Your task to perform on an android device: Search for vegetarian restaurants on Maps Image 0: 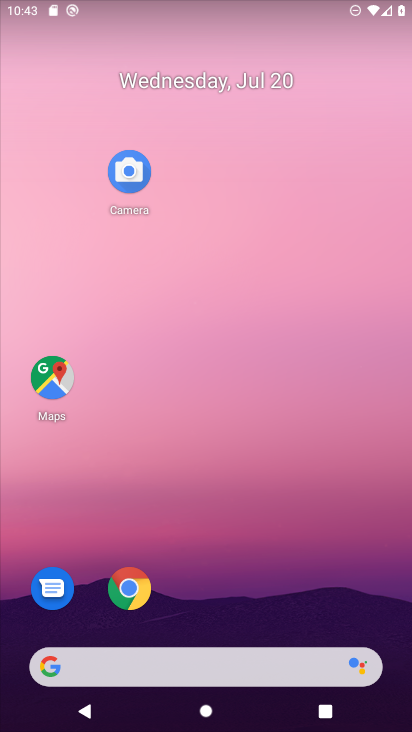
Step 0: press home button
Your task to perform on an android device: Search for vegetarian restaurants on Maps Image 1: 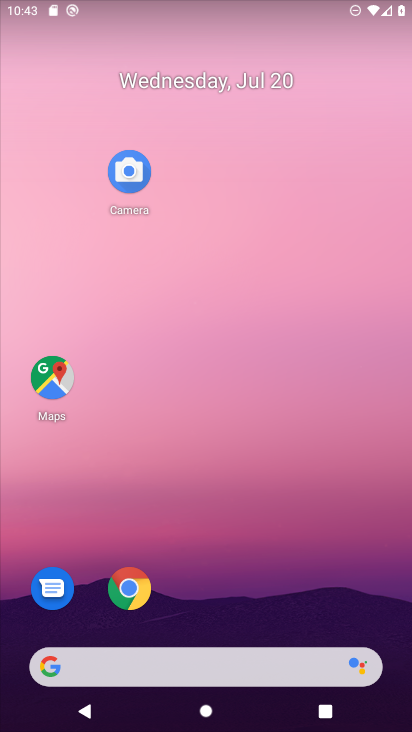
Step 1: click (56, 369)
Your task to perform on an android device: Search for vegetarian restaurants on Maps Image 2: 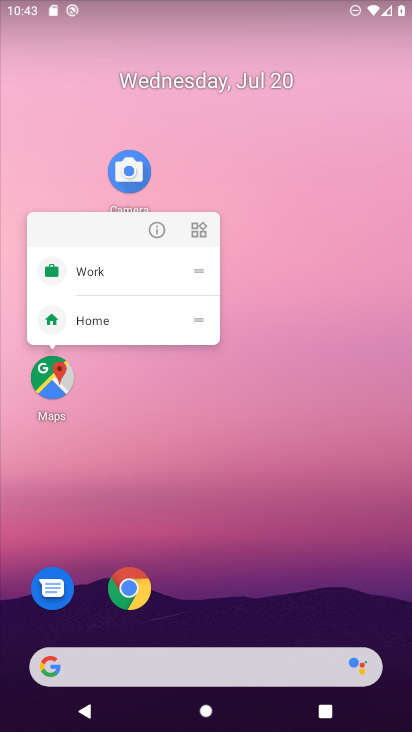
Step 2: click (48, 378)
Your task to perform on an android device: Search for vegetarian restaurants on Maps Image 3: 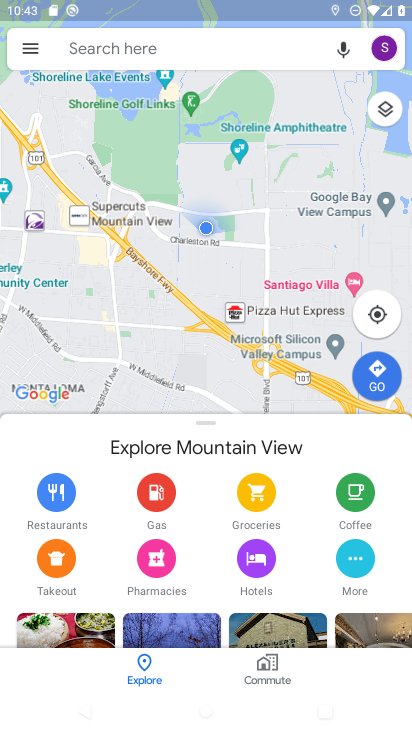
Step 3: type "vegetarian restaurants"
Your task to perform on an android device: Search for vegetarian restaurants on Maps Image 4: 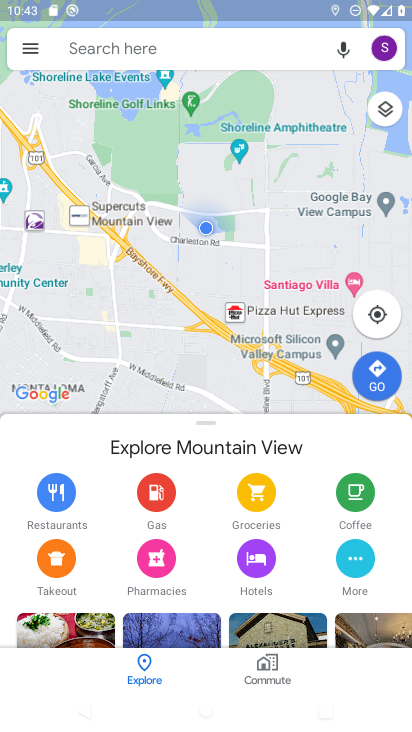
Step 4: click (105, 51)
Your task to perform on an android device: Search for vegetarian restaurants on Maps Image 5: 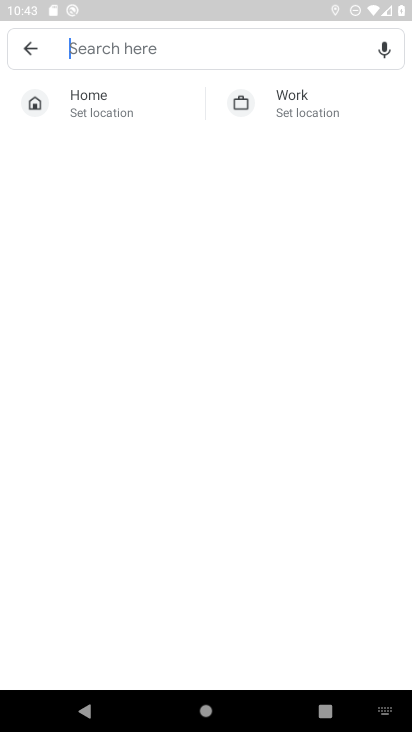
Step 5: press enter
Your task to perform on an android device: Search for vegetarian restaurants on Maps Image 6: 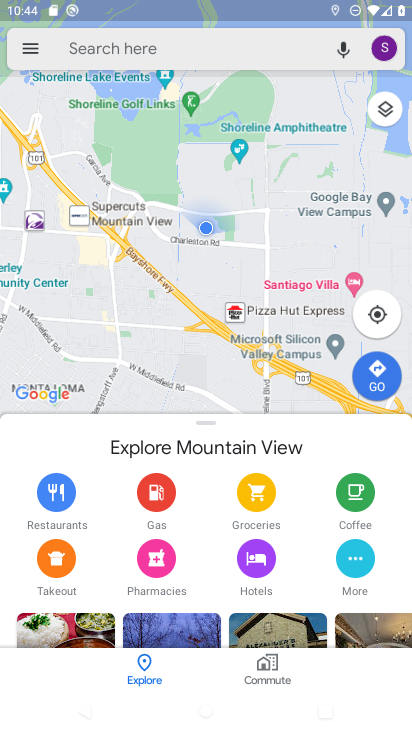
Step 6: click (108, 50)
Your task to perform on an android device: Search for vegetarian restaurants on Maps Image 7: 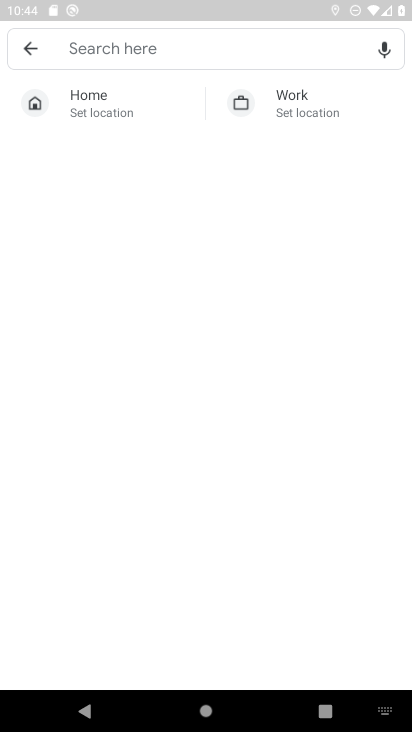
Step 7: type "vegetarian restaurants"
Your task to perform on an android device: Search for vegetarian restaurants on Maps Image 8: 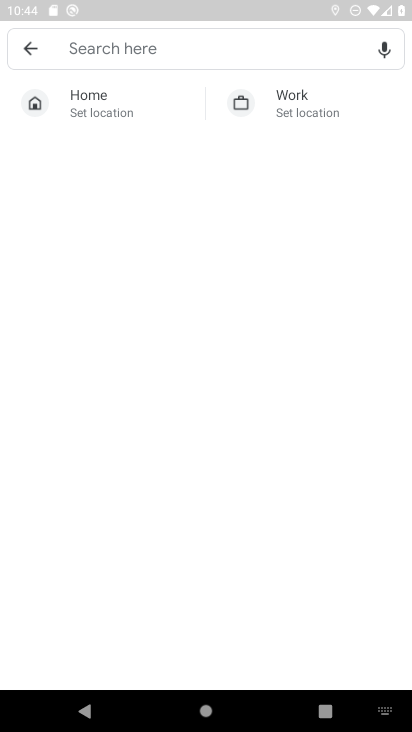
Step 8: click (85, 43)
Your task to perform on an android device: Search for vegetarian restaurants on Maps Image 9: 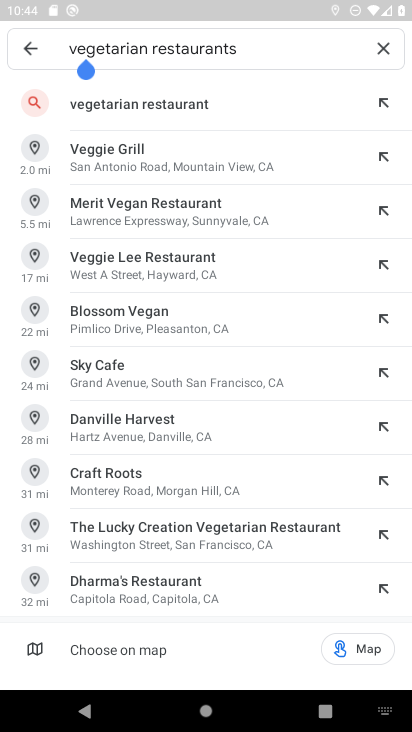
Step 9: press enter
Your task to perform on an android device: Search for vegetarian restaurants on Maps Image 10: 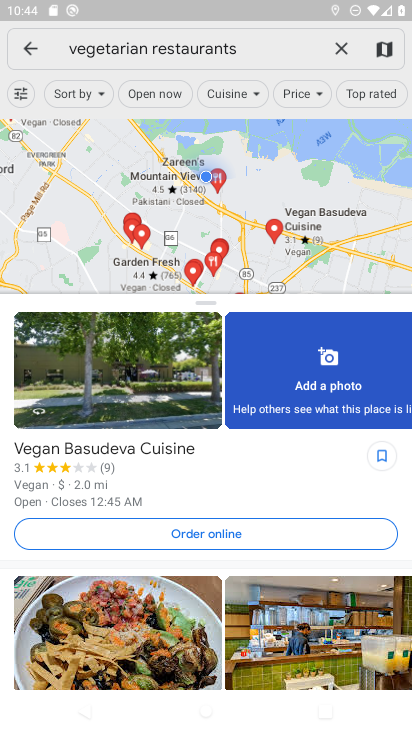
Step 10: task complete